Your task to perform on an android device: change notification settings in the gmail app Image 0: 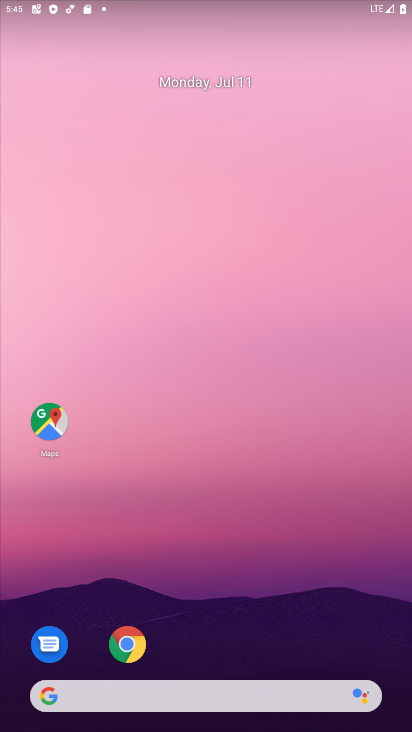
Step 0: drag from (230, 689) to (403, 5)
Your task to perform on an android device: change notification settings in the gmail app Image 1: 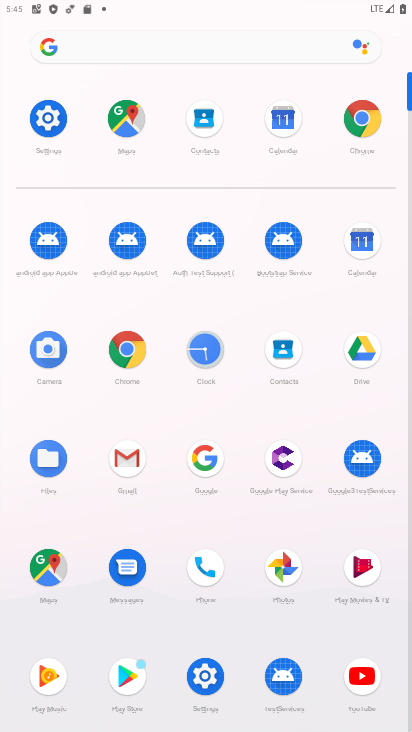
Step 1: click (128, 470)
Your task to perform on an android device: change notification settings in the gmail app Image 2: 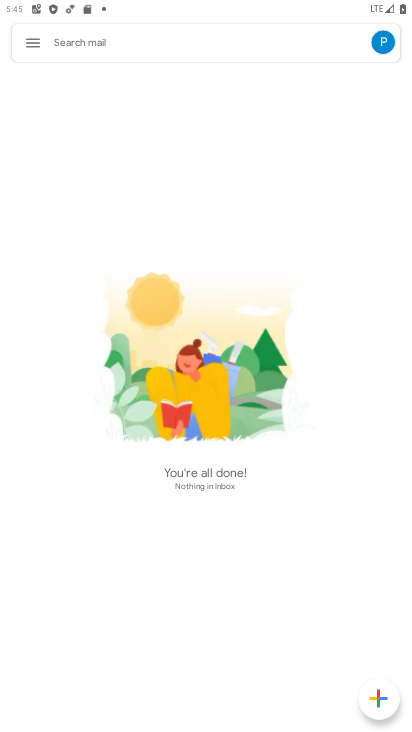
Step 2: click (22, 41)
Your task to perform on an android device: change notification settings in the gmail app Image 3: 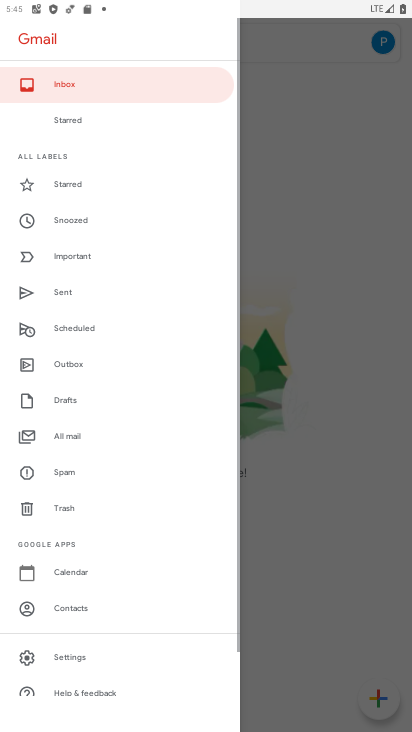
Step 3: click (61, 655)
Your task to perform on an android device: change notification settings in the gmail app Image 4: 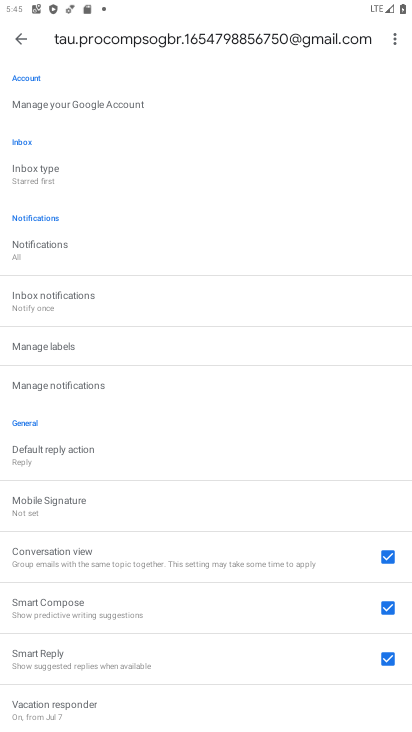
Step 4: click (76, 383)
Your task to perform on an android device: change notification settings in the gmail app Image 5: 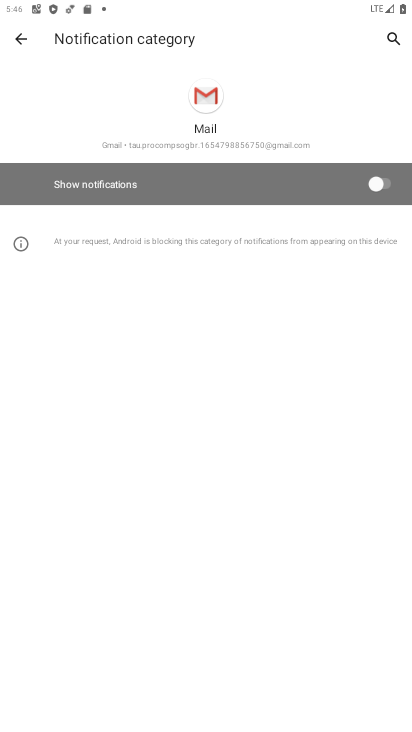
Step 5: click (389, 184)
Your task to perform on an android device: change notification settings in the gmail app Image 6: 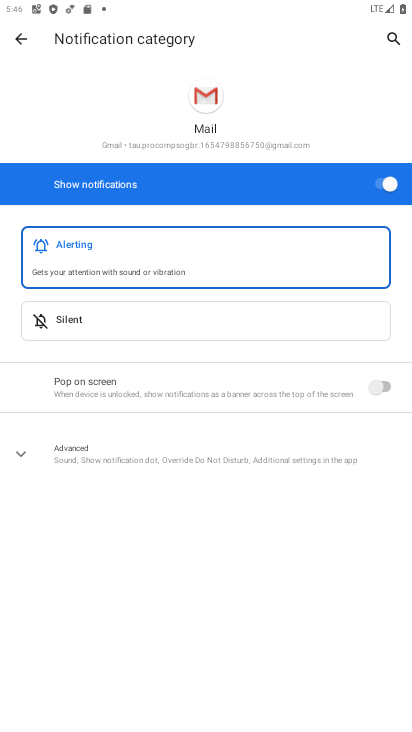
Step 6: task complete